Your task to perform on an android device: turn on javascript in the chrome app Image 0: 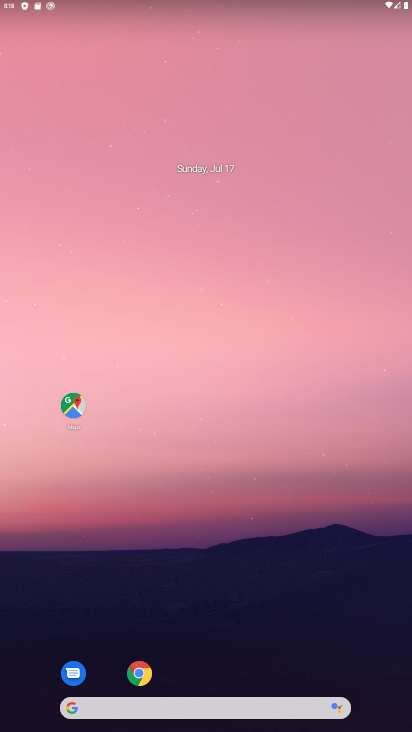
Step 0: drag from (301, 680) to (315, 162)
Your task to perform on an android device: turn on javascript in the chrome app Image 1: 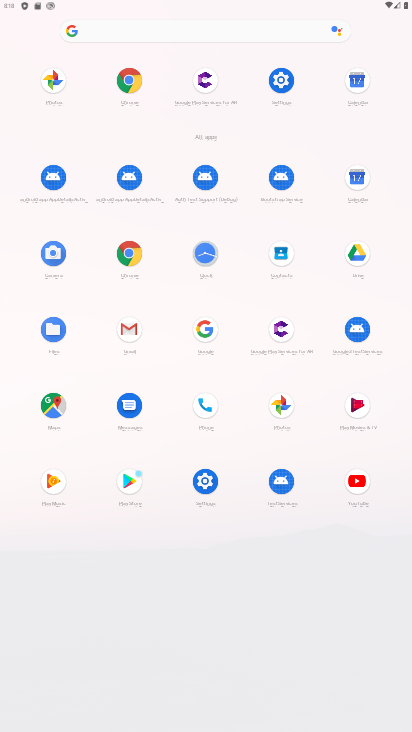
Step 1: click (133, 74)
Your task to perform on an android device: turn on javascript in the chrome app Image 2: 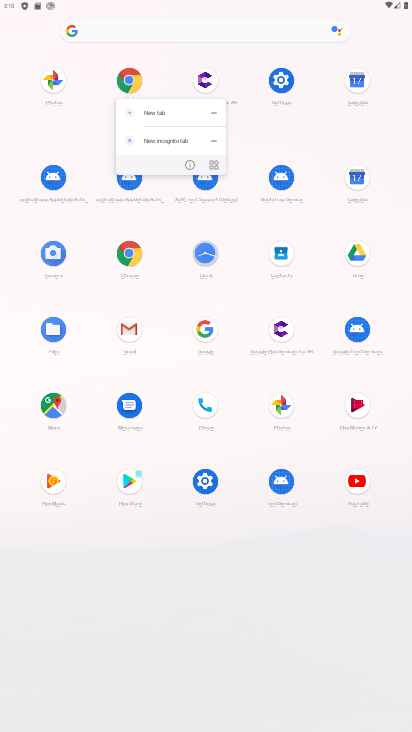
Step 2: click (126, 76)
Your task to perform on an android device: turn on javascript in the chrome app Image 3: 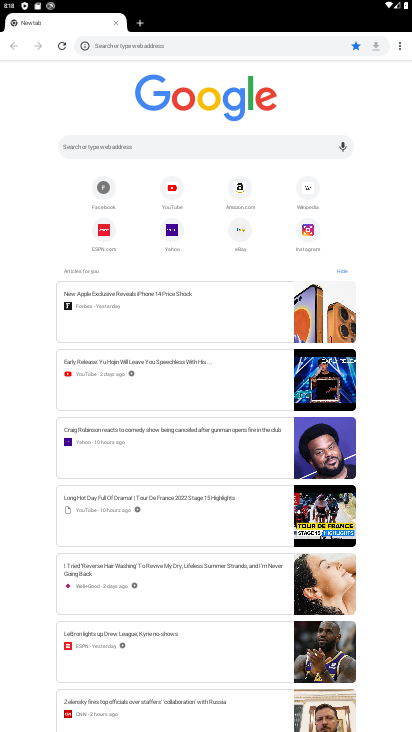
Step 3: drag from (396, 42) to (315, 220)
Your task to perform on an android device: turn on javascript in the chrome app Image 4: 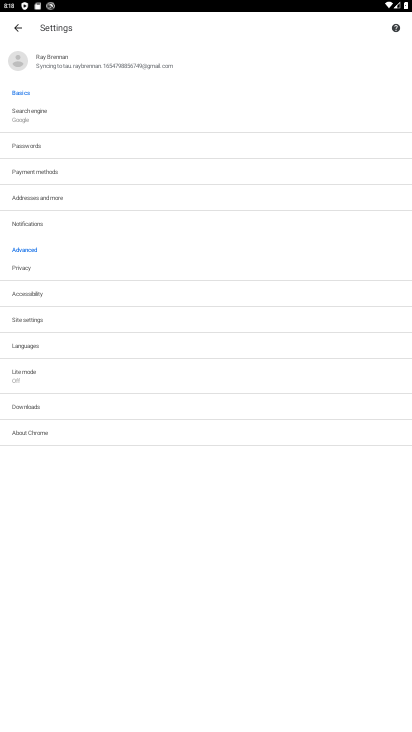
Step 4: click (36, 320)
Your task to perform on an android device: turn on javascript in the chrome app Image 5: 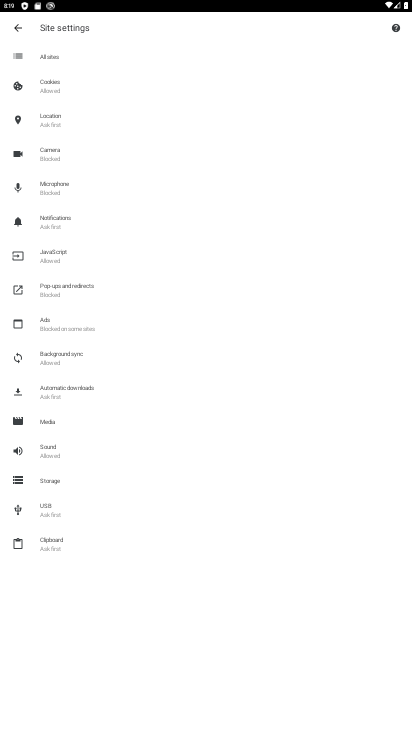
Step 5: click (63, 249)
Your task to perform on an android device: turn on javascript in the chrome app Image 6: 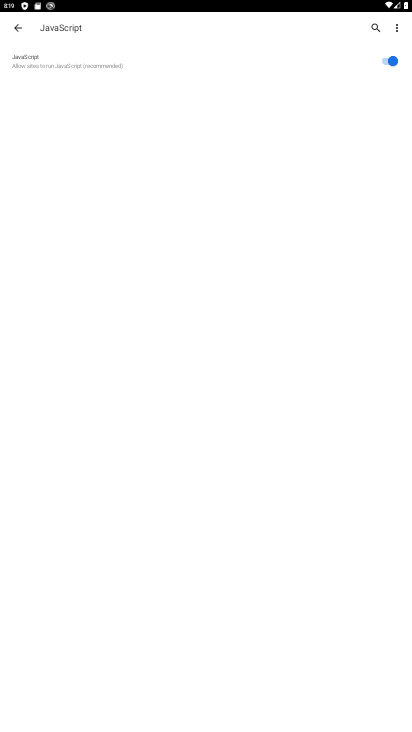
Step 6: task complete